Your task to perform on an android device: change timer sound Image 0: 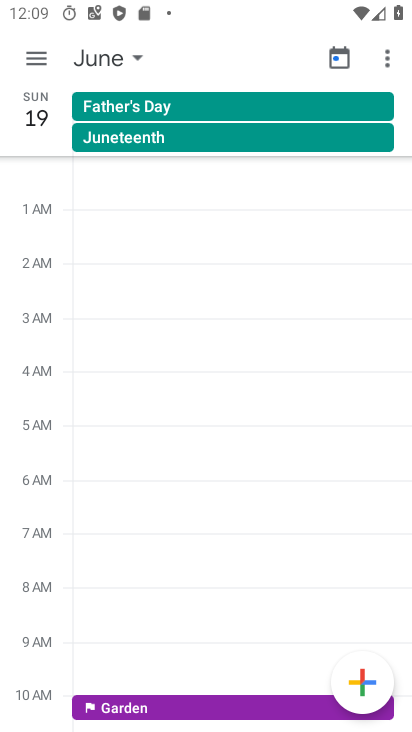
Step 0: press home button
Your task to perform on an android device: change timer sound Image 1: 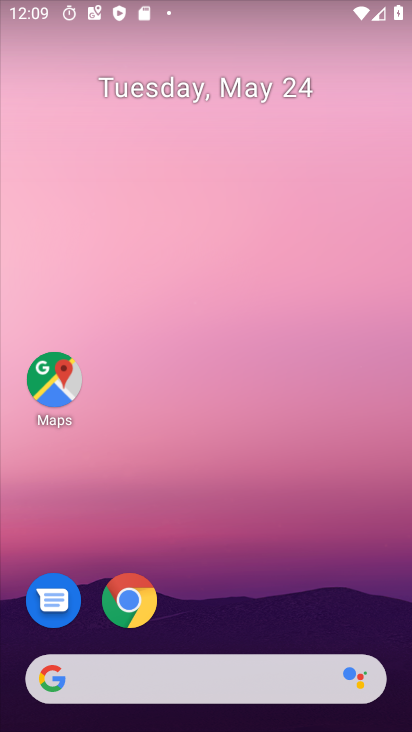
Step 1: drag from (263, 598) to (252, 170)
Your task to perform on an android device: change timer sound Image 2: 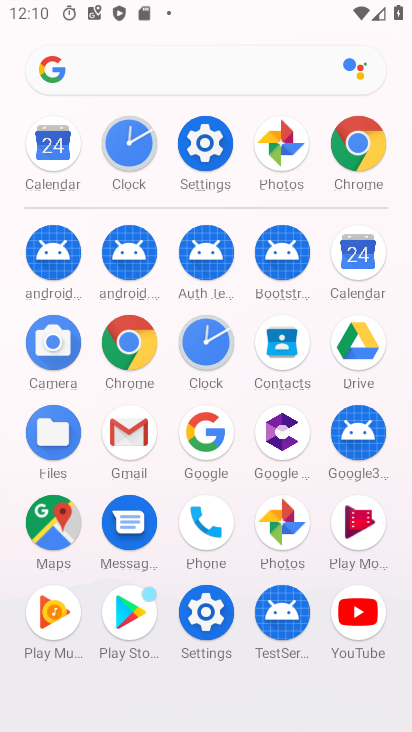
Step 2: click (215, 130)
Your task to perform on an android device: change timer sound Image 3: 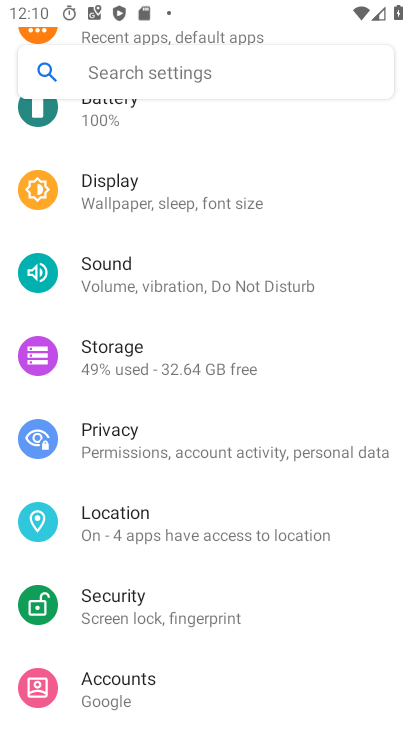
Step 3: click (176, 296)
Your task to perform on an android device: change timer sound Image 4: 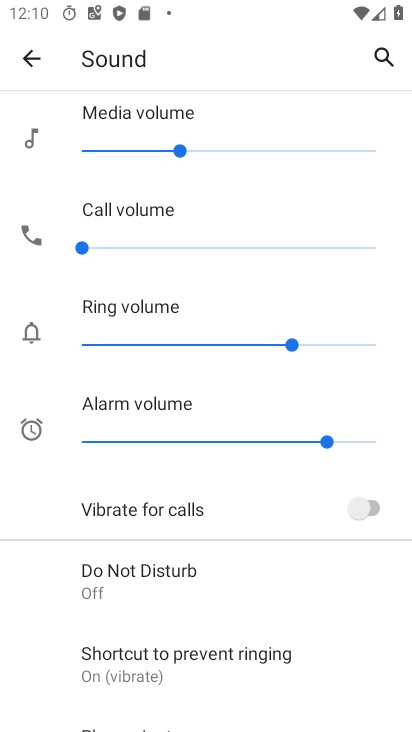
Step 4: press home button
Your task to perform on an android device: change timer sound Image 5: 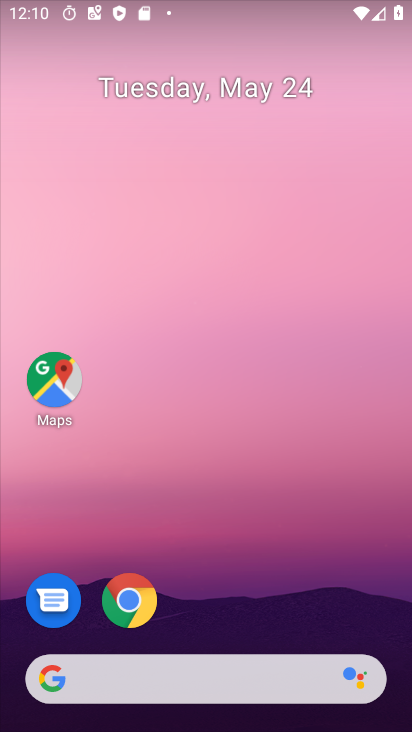
Step 5: drag from (207, 482) to (224, 156)
Your task to perform on an android device: change timer sound Image 6: 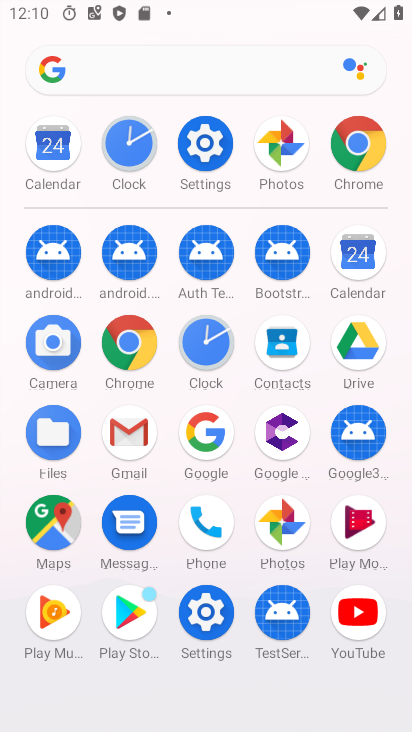
Step 6: click (206, 330)
Your task to perform on an android device: change timer sound Image 7: 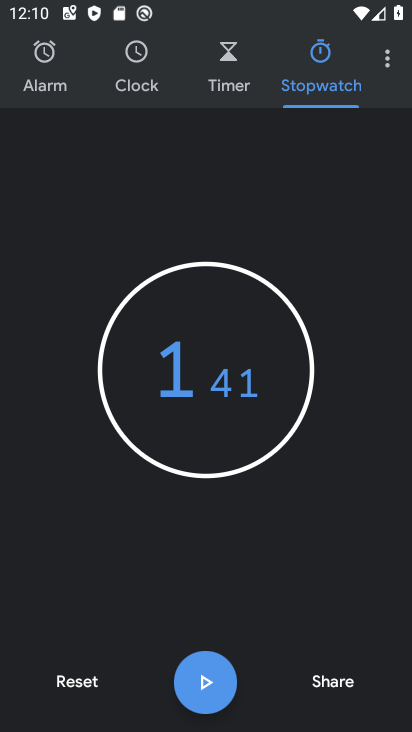
Step 7: click (389, 55)
Your task to perform on an android device: change timer sound Image 8: 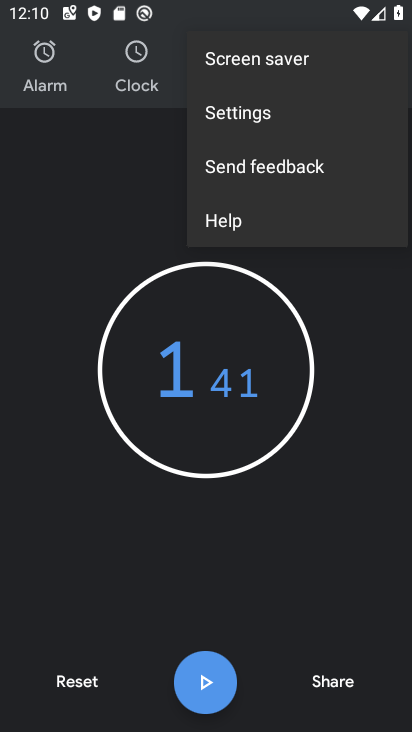
Step 8: click (224, 117)
Your task to perform on an android device: change timer sound Image 9: 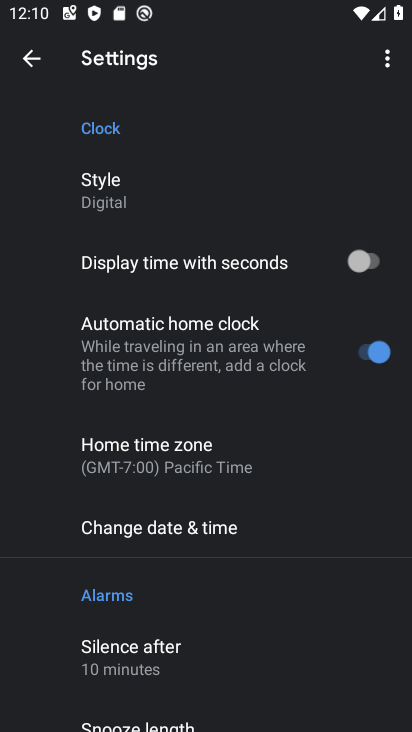
Step 9: drag from (206, 602) to (262, 134)
Your task to perform on an android device: change timer sound Image 10: 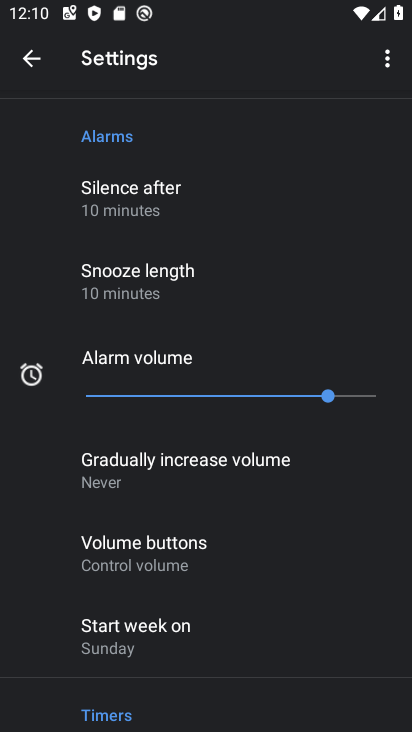
Step 10: drag from (210, 249) to (278, 122)
Your task to perform on an android device: change timer sound Image 11: 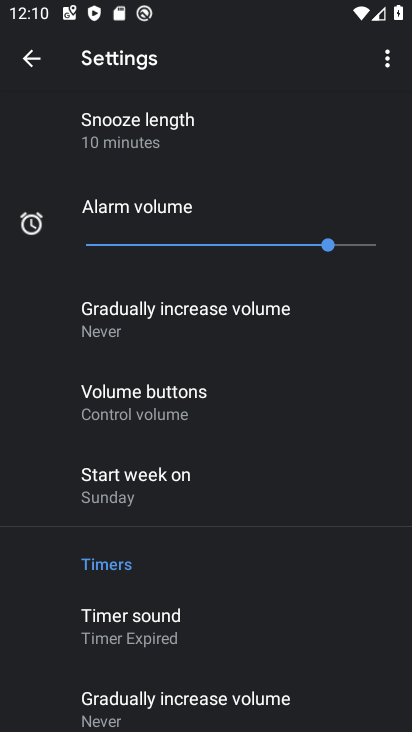
Step 11: drag from (214, 466) to (274, 245)
Your task to perform on an android device: change timer sound Image 12: 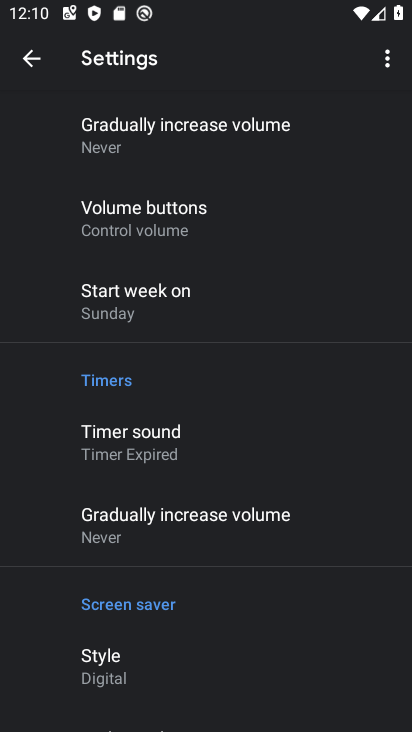
Step 12: click (172, 460)
Your task to perform on an android device: change timer sound Image 13: 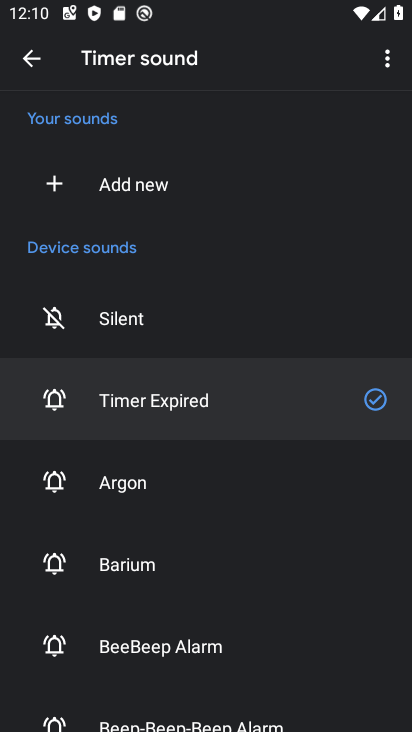
Step 13: click (149, 485)
Your task to perform on an android device: change timer sound Image 14: 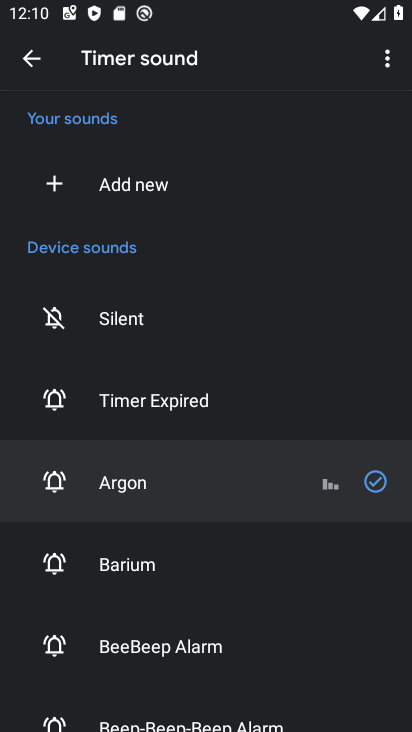
Step 14: task complete